Your task to perform on an android device: check out phone information Image 0: 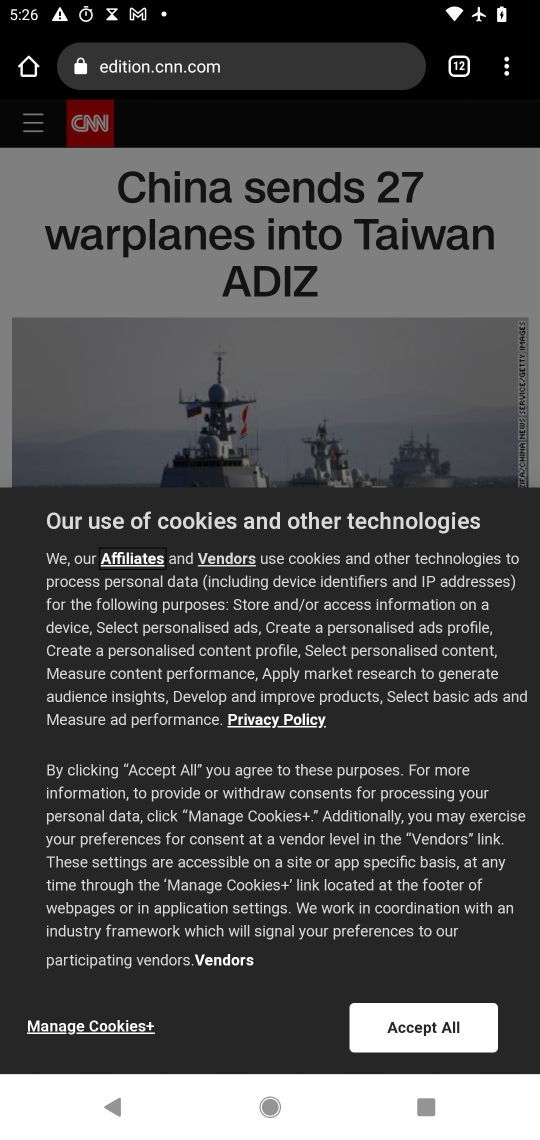
Step 0: press home button
Your task to perform on an android device: check out phone information Image 1: 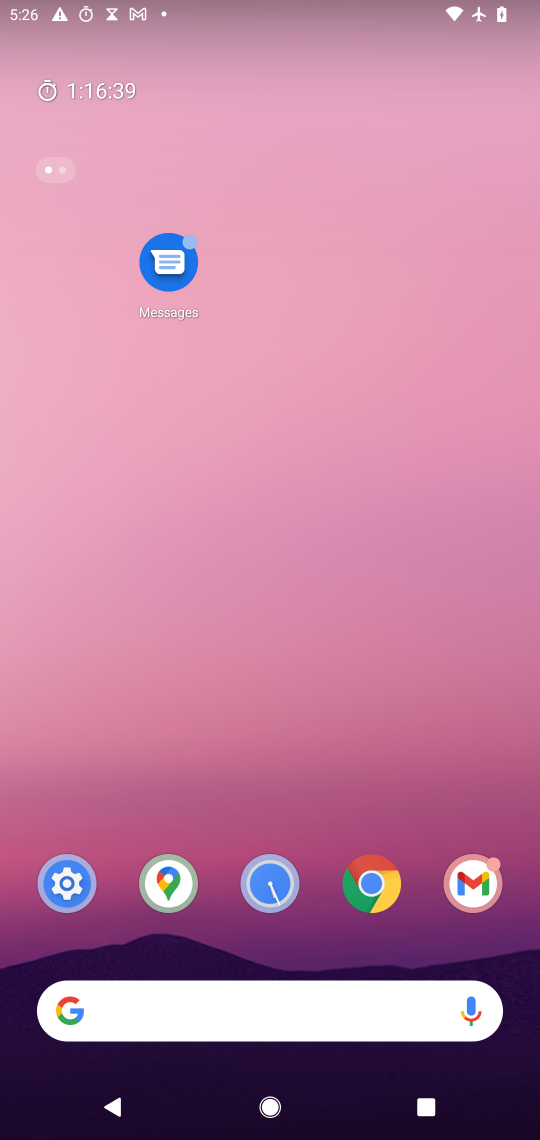
Step 1: drag from (358, 966) to (377, 36)
Your task to perform on an android device: check out phone information Image 2: 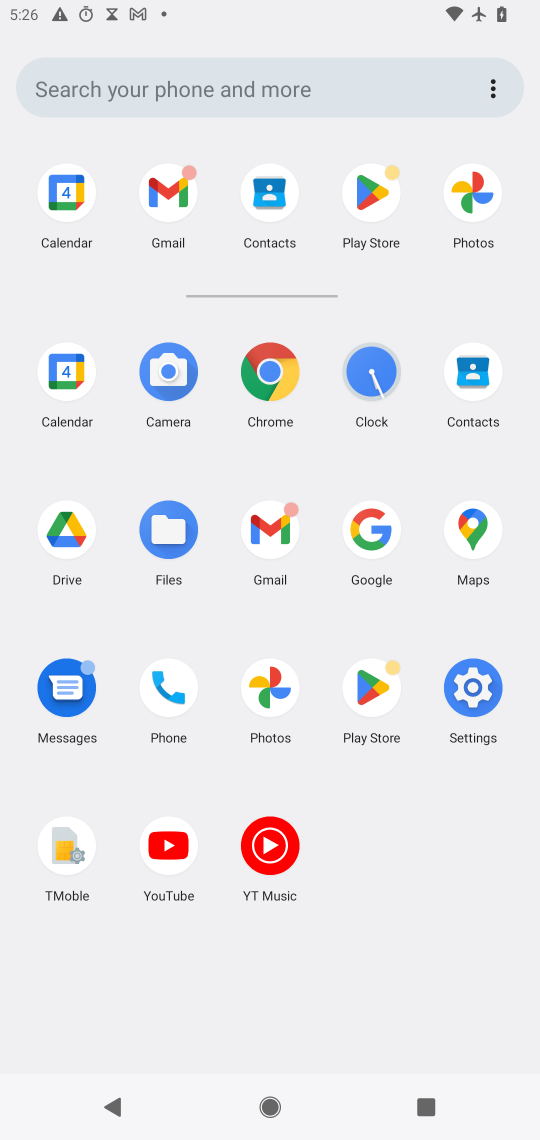
Step 2: click (477, 686)
Your task to perform on an android device: check out phone information Image 3: 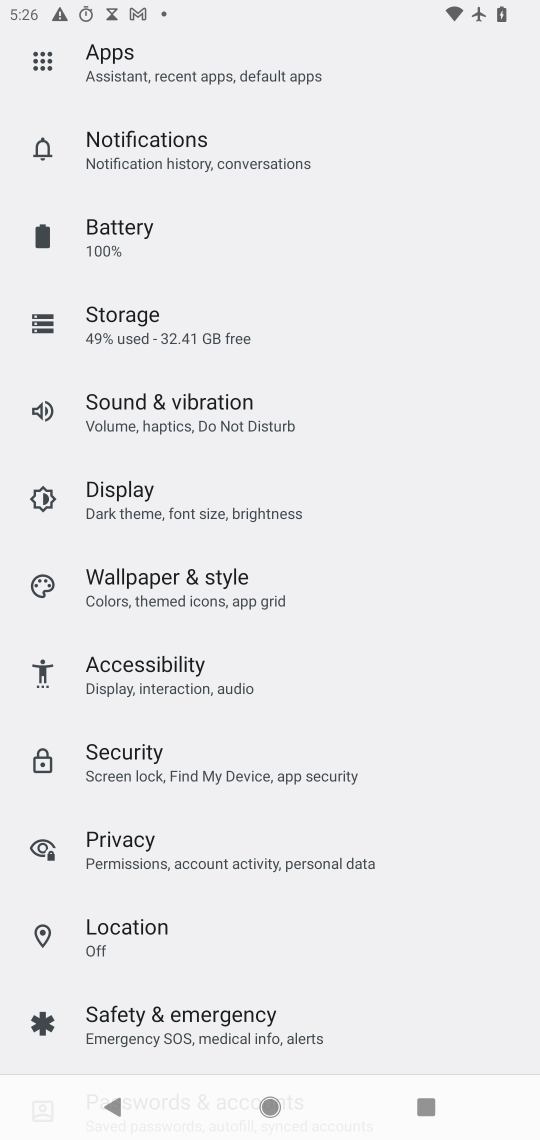
Step 3: drag from (133, 1008) to (163, 424)
Your task to perform on an android device: check out phone information Image 4: 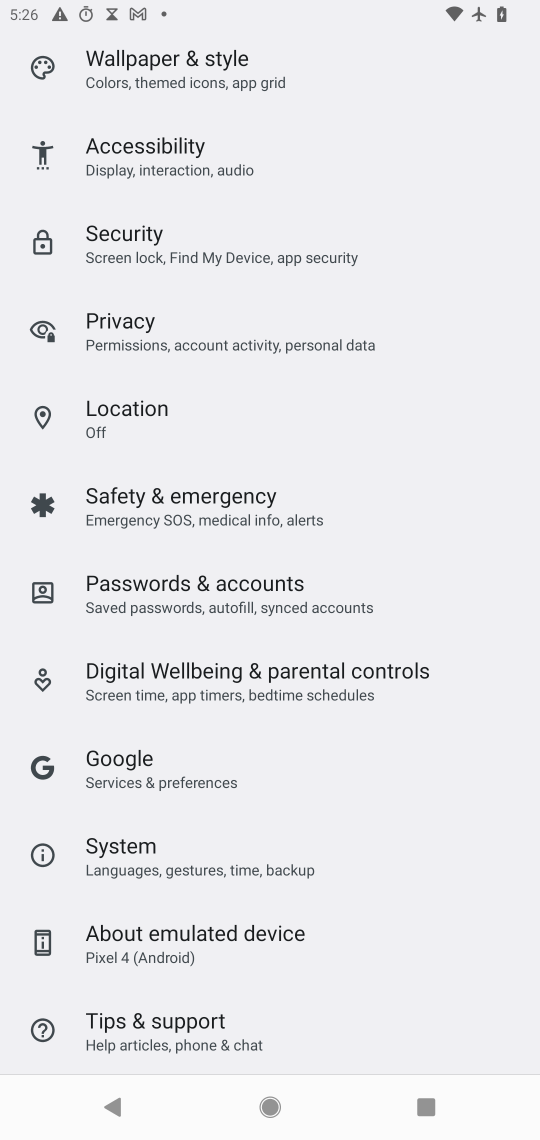
Step 4: drag from (210, 912) to (212, 478)
Your task to perform on an android device: check out phone information Image 5: 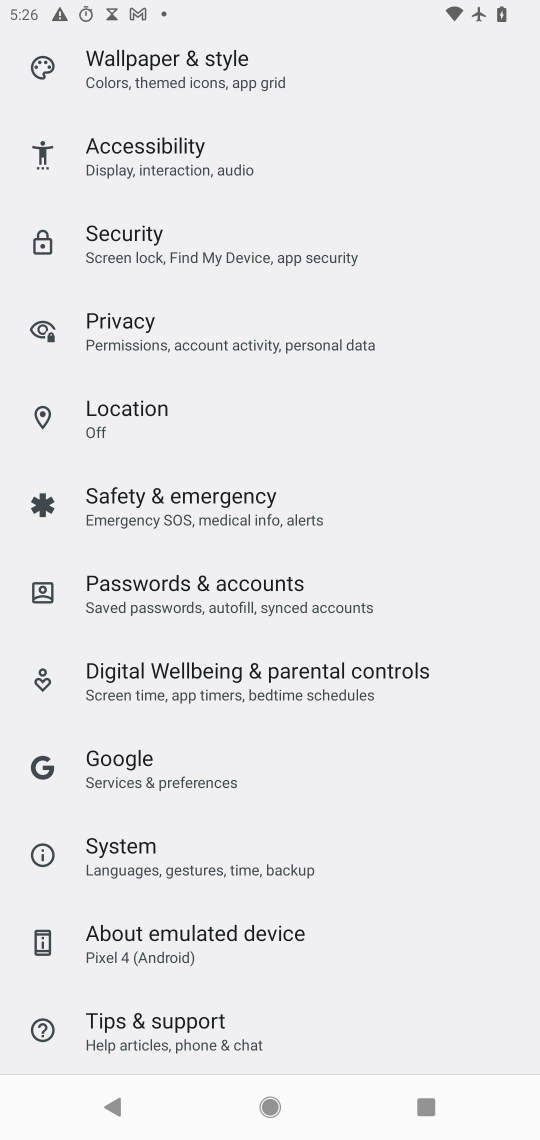
Step 5: click (188, 953)
Your task to perform on an android device: check out phone information Image 6: 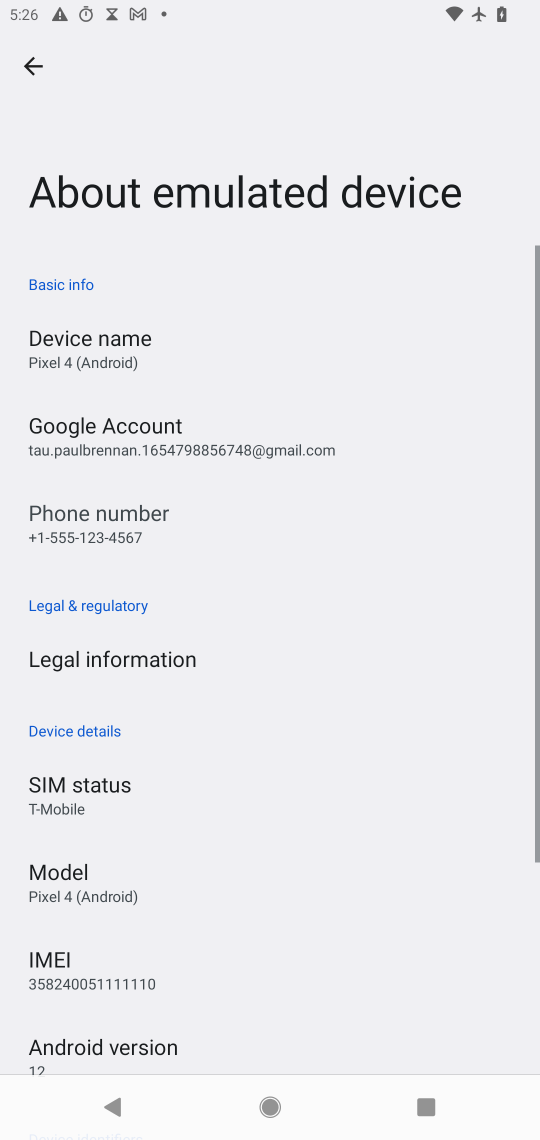
Step 6: task complete